Your task to perform on an android device: open device folders in google photos Image 0: 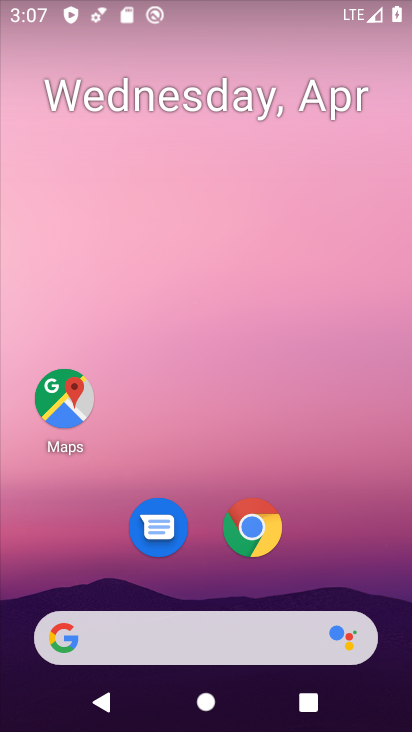
Step 0: drag from (204, 555) to (228, 36)
Your task to perform on an android device: open device folders in google photos Image 1: 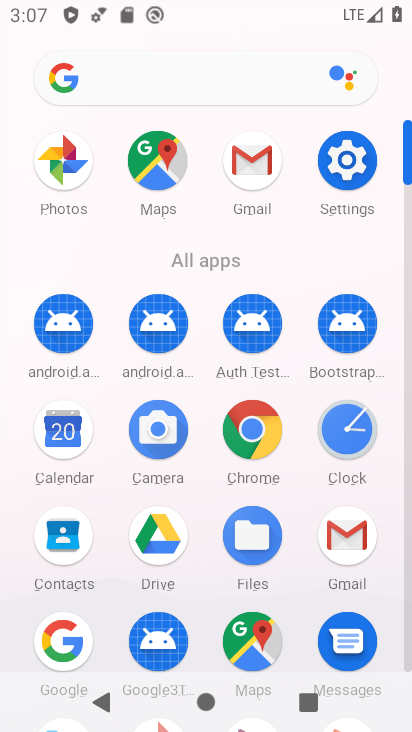
Step 1: click (203, 548)
Your task to perform on an android device: open device folders in google photos Image 2: 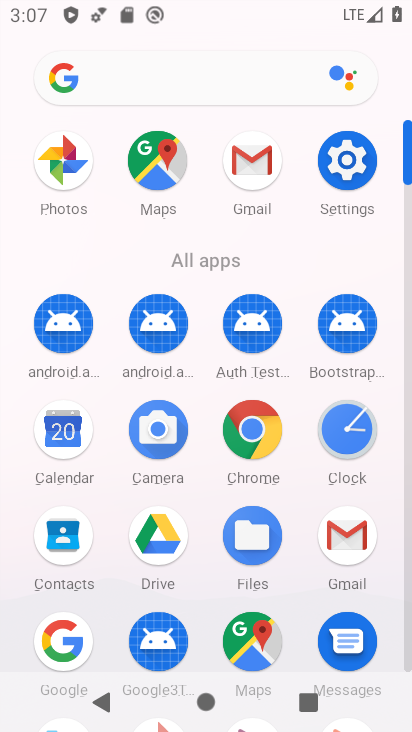
Step 2: click (61, 176)
Your task to perform on an android device: open device folders in google photos Image 3: 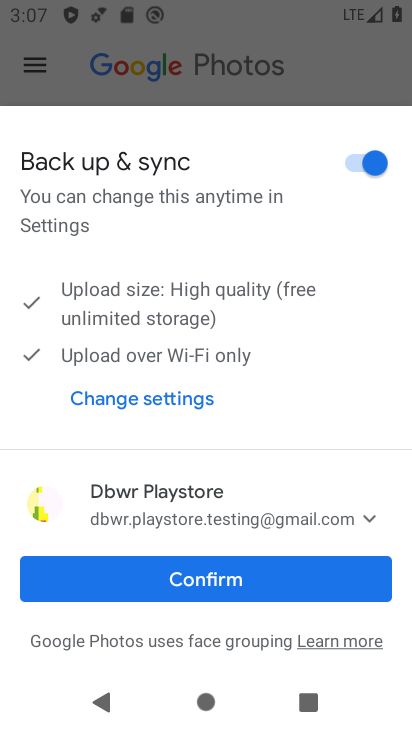
Step 3: click (248, 583)
Your task to perform on an android device: open device folders in google photos Image 4: 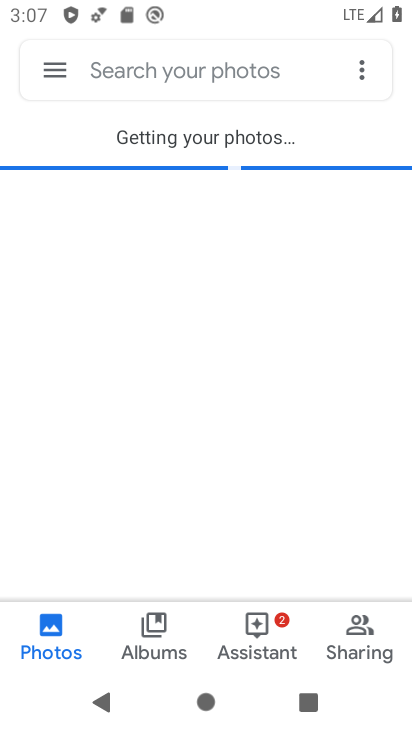
Step 4: click (58, 64)
Your task to perform on an android device: open device folders in google photos Image 5: 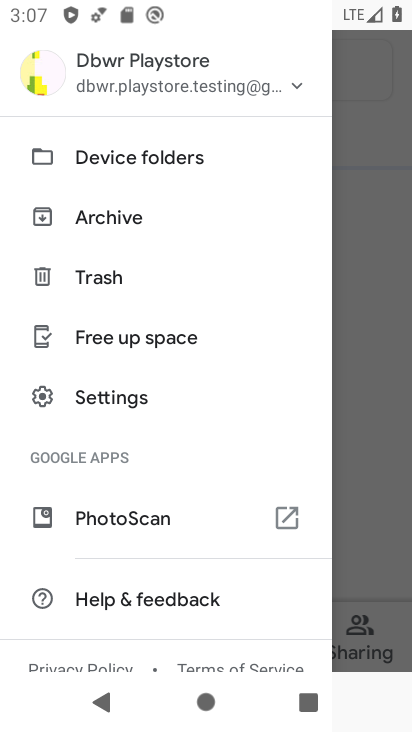
Step 5: click (162, 167)
Your task to perform on an android device: open device folders in google photos Image 6: 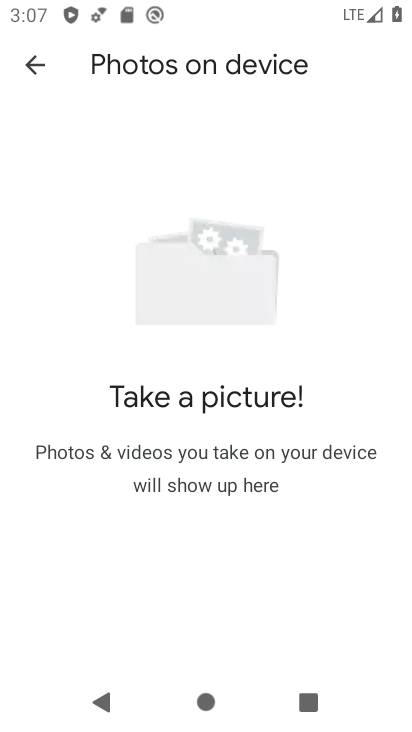
Step 6: task complete